Your task to perform on an android device: Go to sound settings Image 0: 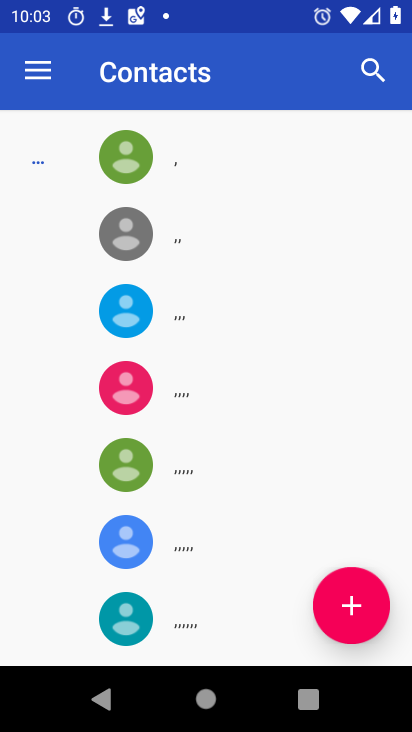
Step 0: press home button
Your task to perform on an android device: Go to sound settings Image 1: 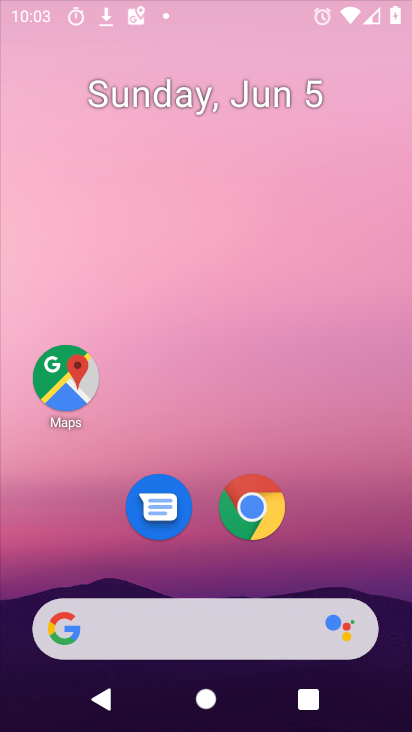
Step 1: drag from (238, 656) to (262, 141)
Your task to perform on an android device: Go to sound settings Image 2: 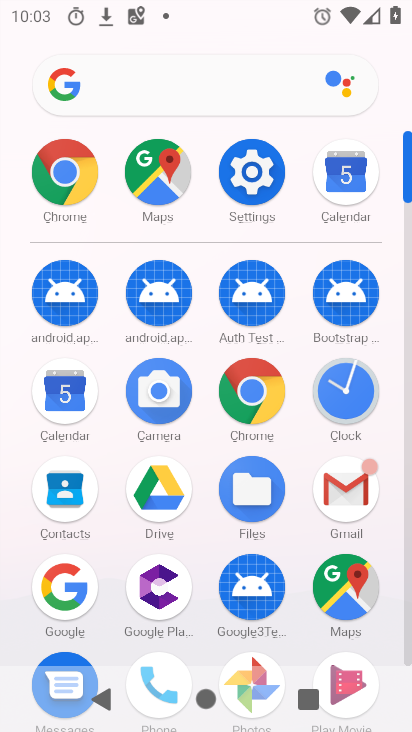
Step 2: click (258, 186)
Your task to perform on an android device: Go to sound settings Image 3: 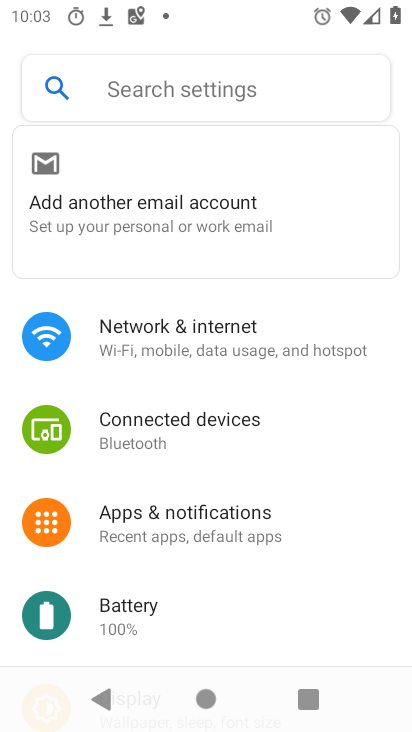
Step 3: click (169, 96)
Your task to perform on an android device: Go to sound settings Image 4: 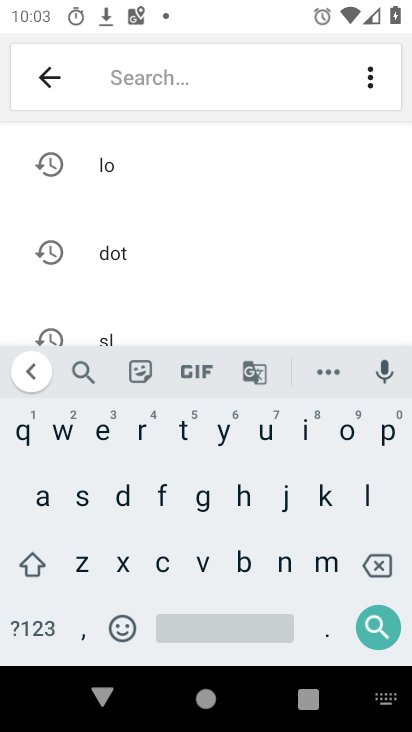
Step 4: click (80, 496)
Your task to perform on an android device: Go to sound settings Image 5: 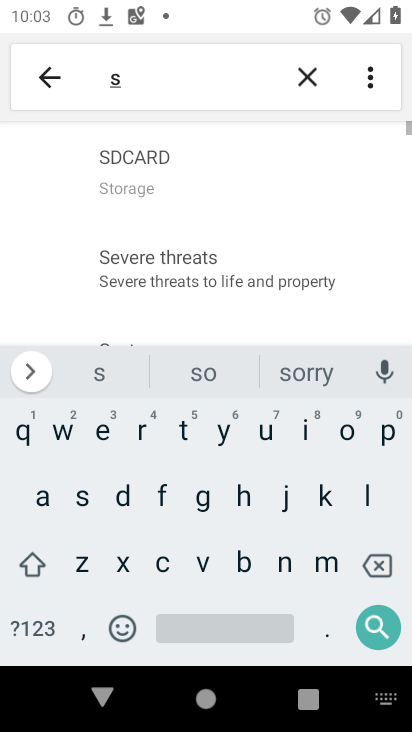
Step 5: click (341, 436)
Your task to perform on an android device: Go to sound settings Image 6: 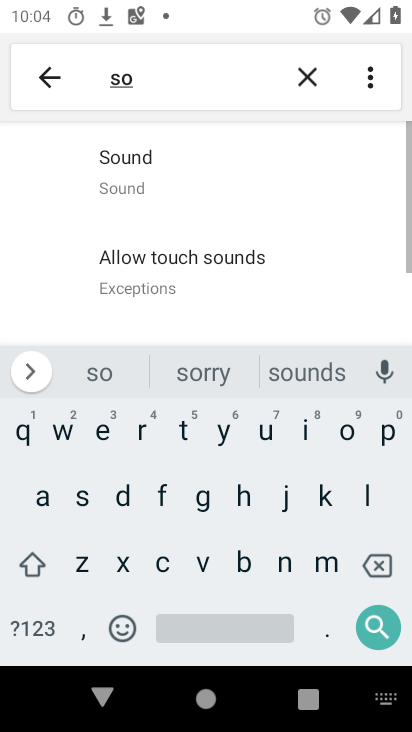
Step 6: click (182, 180)
Your task to perform on an android device: Go to sound settings Image 7: 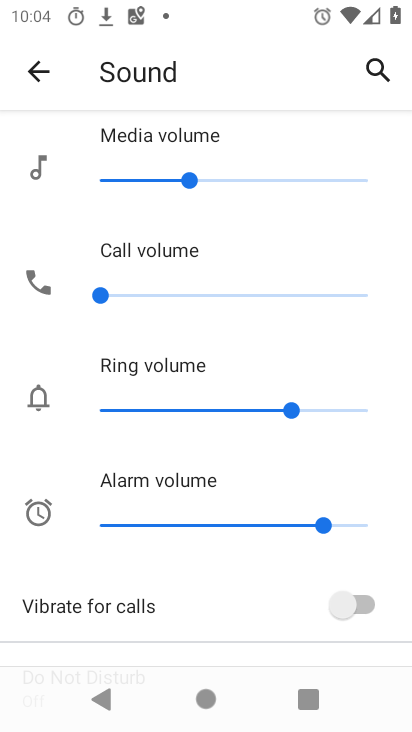
Step 7: task complete